Your task to perform on an android device: Find coffee shops on Maps Image 0: 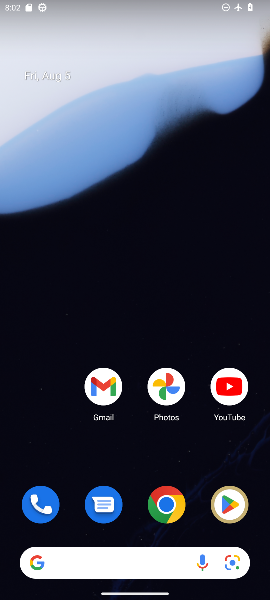
Step 0: drag from (134, 563) to (140, 37)
Your task to perform on an android device: Find coffee shops on Maps Image 1: 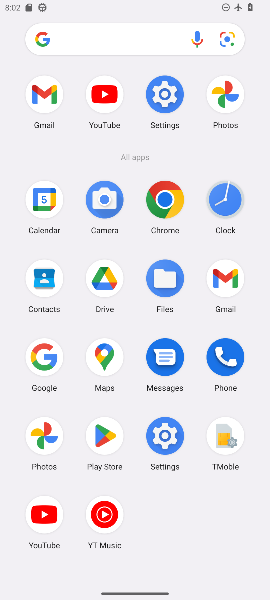
Step 1: click (107, 364)
Your task to perform on an android device: Find coffee shops on Maps Image 2: 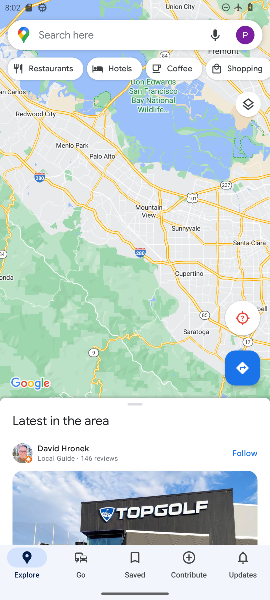
Step 2: click (86, 36)
Your task to perform on an android device: Find coffee shops on Maps Image 3: 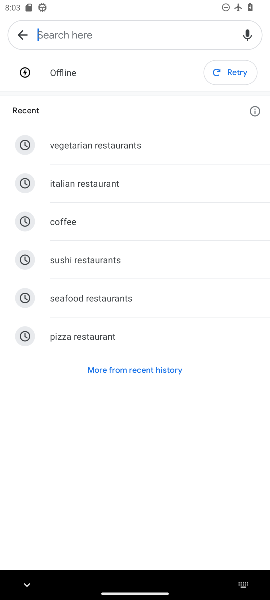
Step 3: type "coffee shops"
Your task to perform on an android device: Find coffee shops on Maps Image 4: 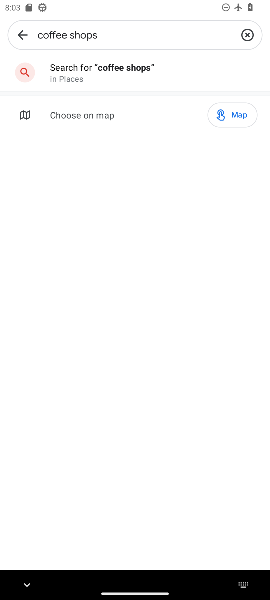
Step 4: click (107, 78)
Your task to perform on an android device: Find coffee shops on Maps Image 5: 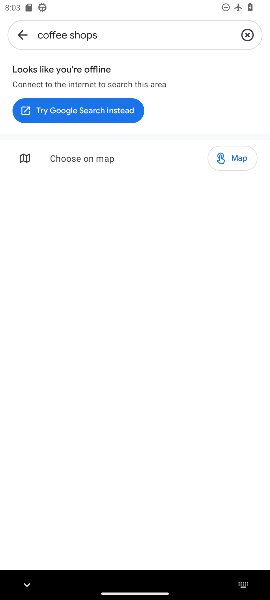
Step 5: task complete